Your task to perform on an android device: Do I have any events today? Image 0: 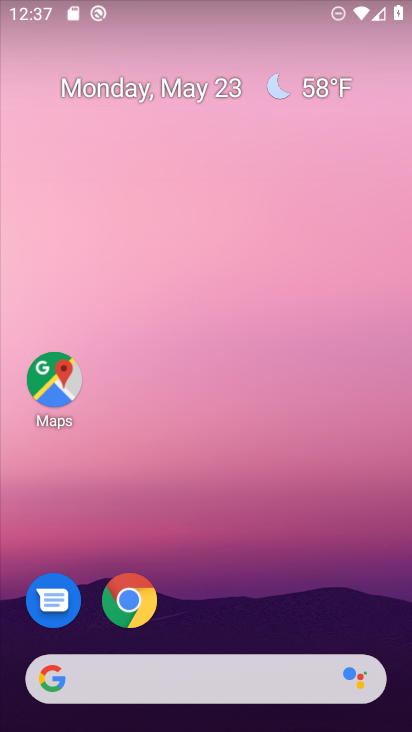
Step 0: drag from (238, 519) to (246, 28)
Your task to perform on an android device: Do I have any events today? Image 1: 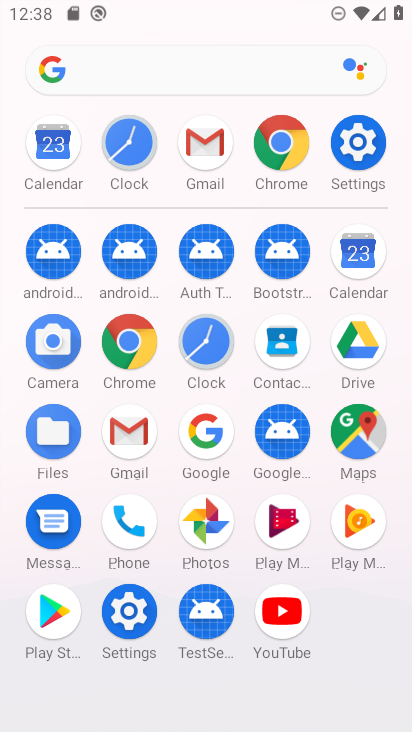
Step 1: click (49, 156)
Your task to perform on an android device: Do I have any events today? Image 2: 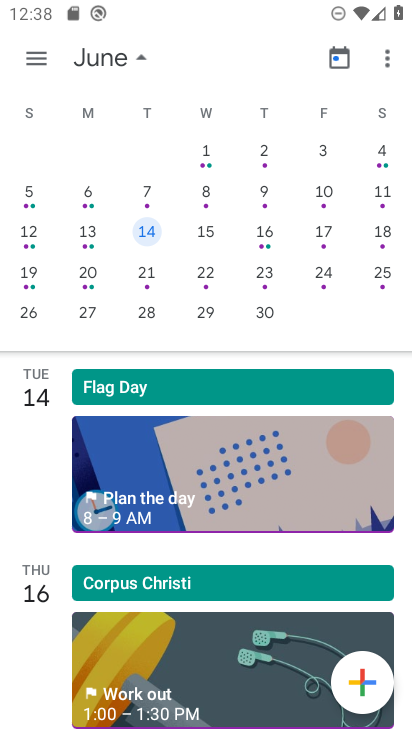
Step 2: task complete